Your task to perform on an android device: Go to battery settings Image 0: 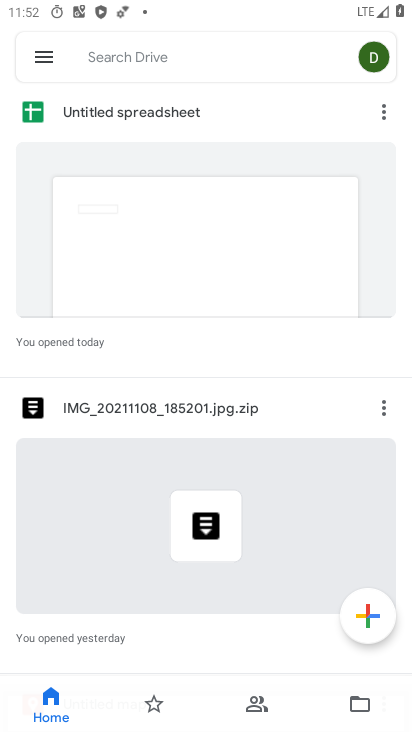
Step 0: press home button
Your task to perform on an android device: Go to battery settings Image 1: 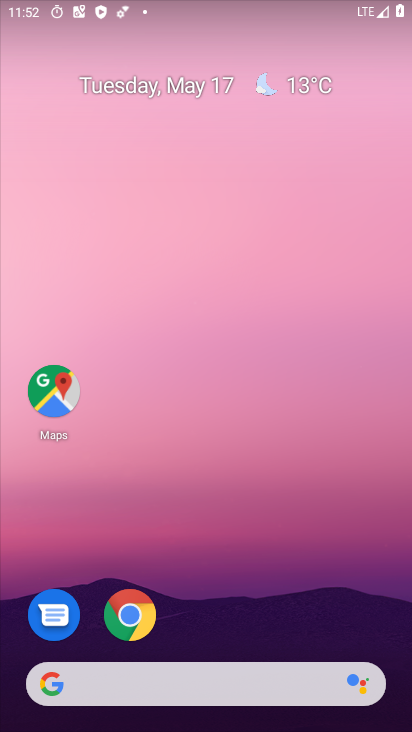
Step 1: drag from (171, 683) to (292, 195)
Your task to perform on an android device: Go to battery settings Image 2: 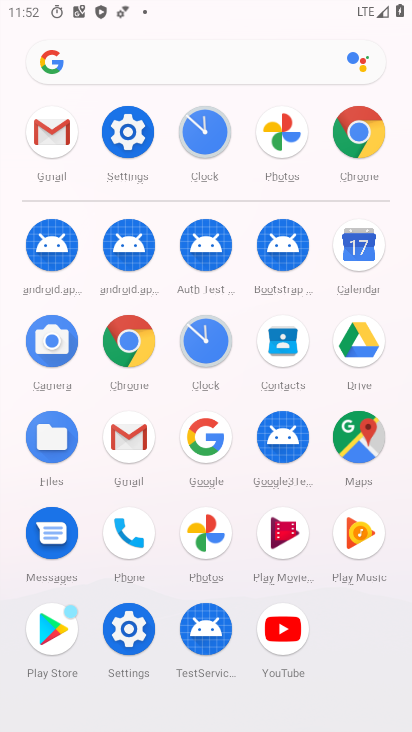
Step 2: click (127, 137)
Your task to perform on an android device: Go to battery settings Image 3: 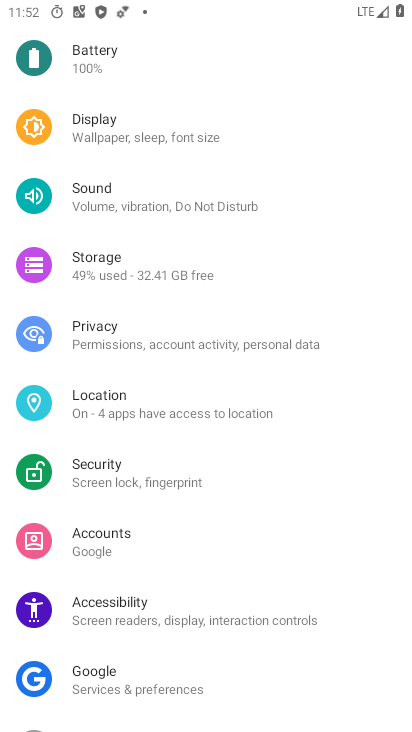
Step 3: click (93, 65)
Your task to perform on an android device: Go to battery settings Image 4: 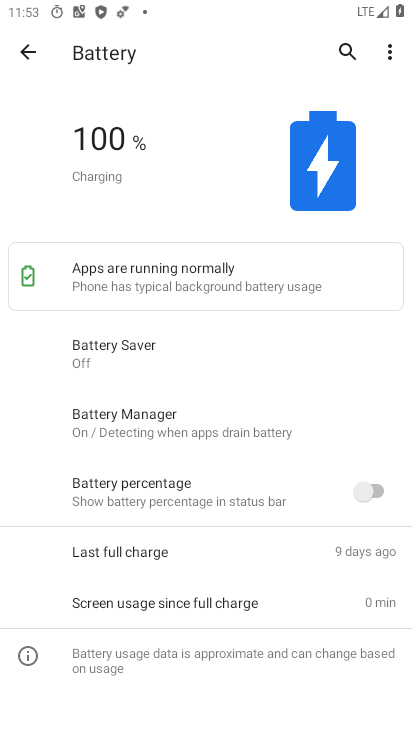
Step 4: task complete